Your task to perform on an android device: open app "Pinterest" (install if not already installed) Image 0: 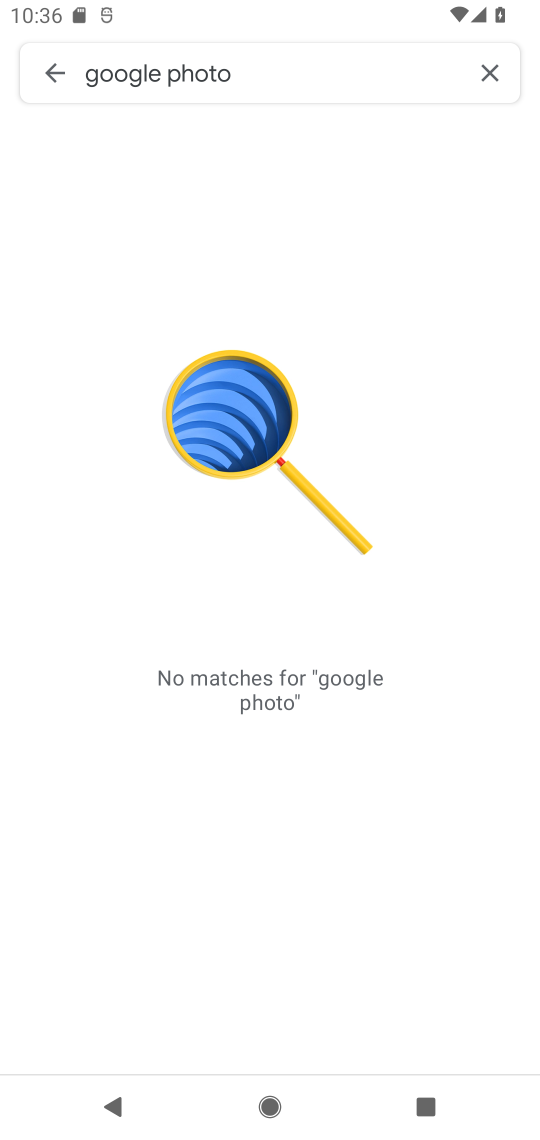
Step 0: press home button
Your task to perform on an android device: open app "Pinterest" (install if not already installed) Image 1: 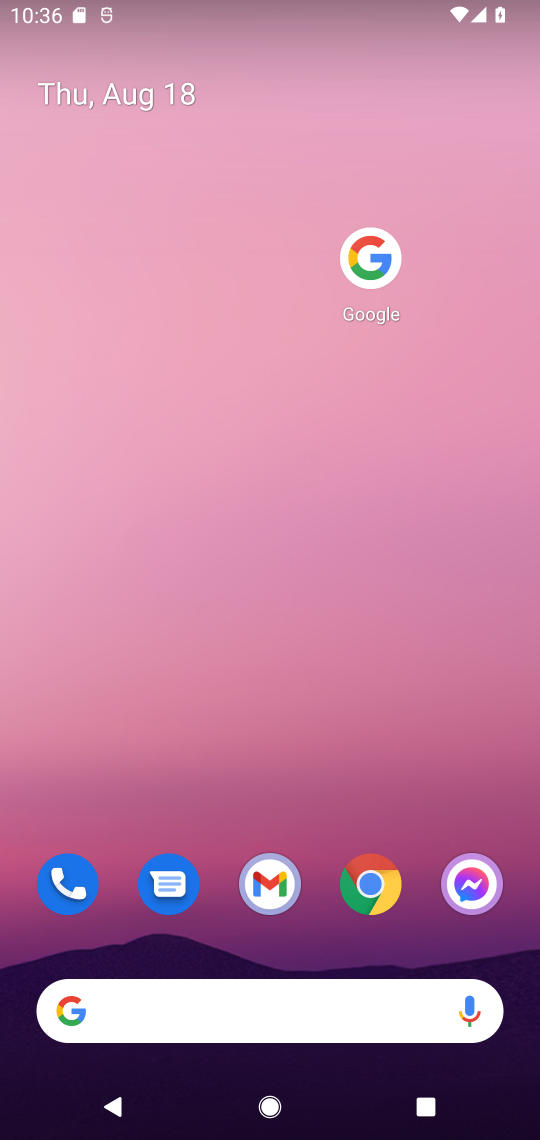
Step 1: drag from (314, 943) to (307, 16)
Your task to perform on an android device: open app "Pinterest" (install if not already installed) Image 2: 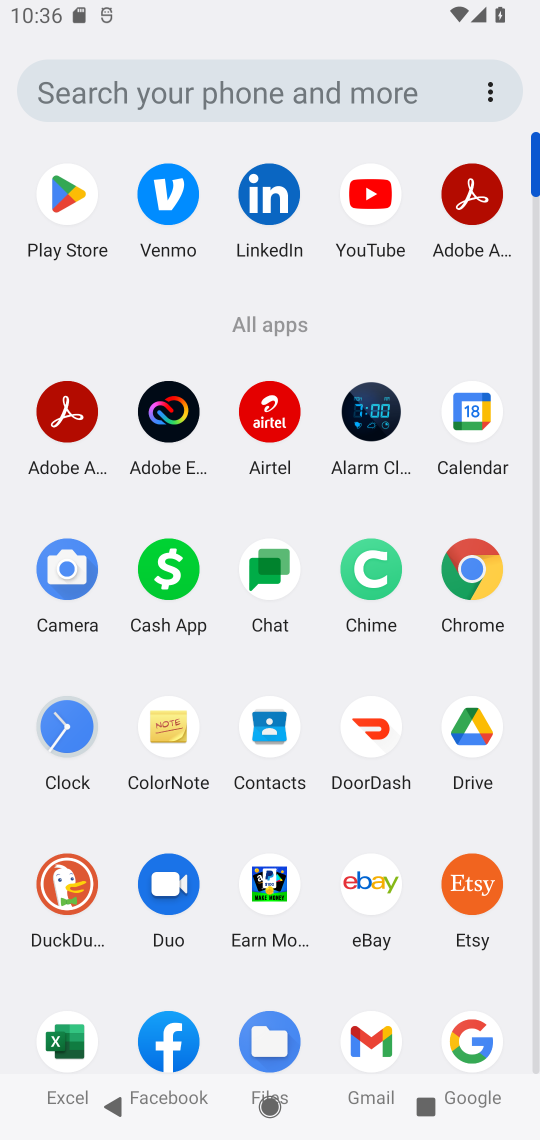
Step 2: drag from (330, 989) to (330, 327)
Your task to perform on an android device: open app "Pinterest" (install if not already installed) Image 3: 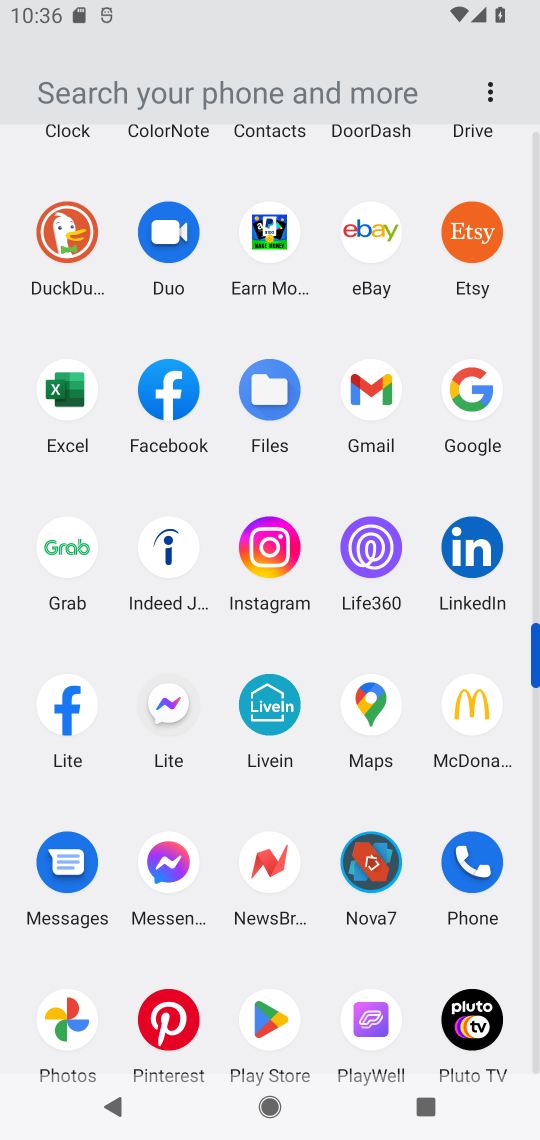
Step 3: click (173, 1026)
Your task to perform on an android device: open app "Pinterest" (install if not already installed) Image 4: 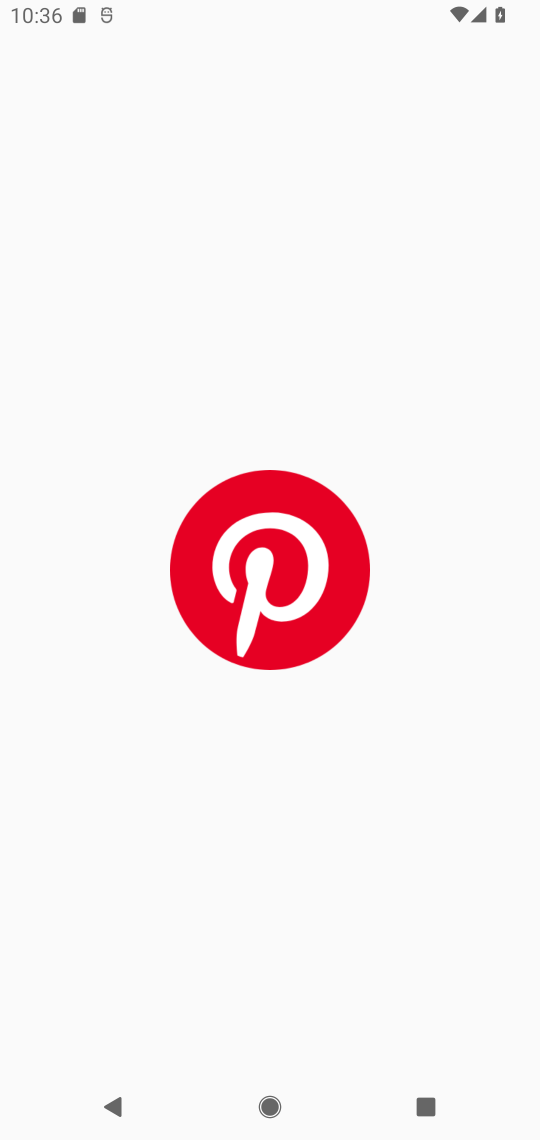
Step 4: task complete